Your task to perform on an android device: set the timer Image 0: 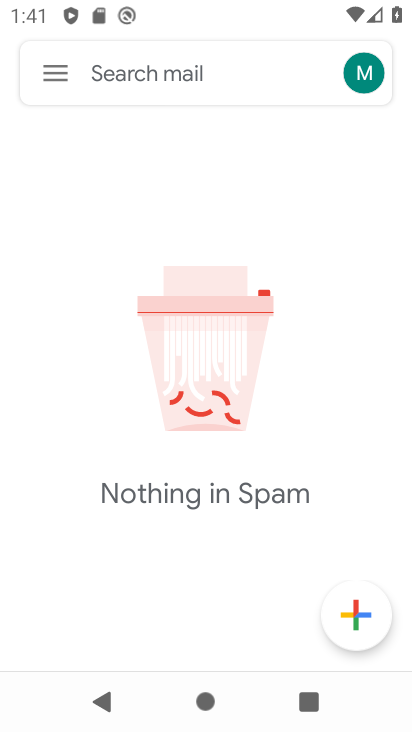
Step 0: press home button
Your task to perform on an android device: set the timer Image 1: 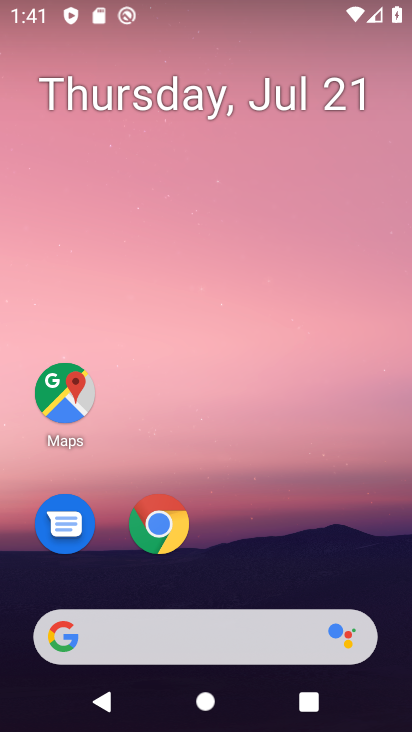
Step 1: drag from (281, 560) to (311, 185)
Your task to perform on an android device: set the timer Image 2: 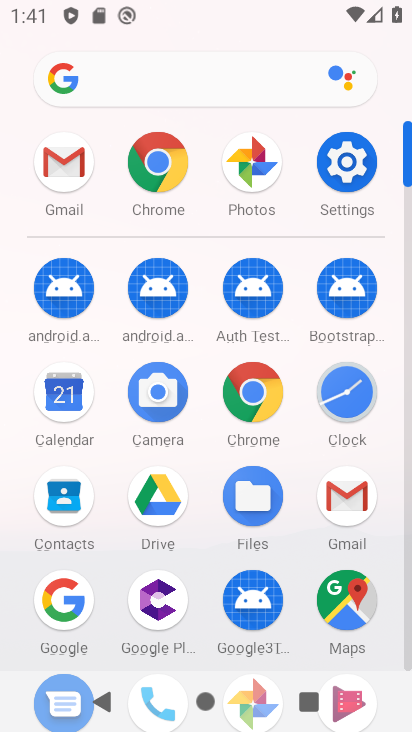
Step 2: click (354, 389)
Your task to perform on an android device: set the timer Image 3: 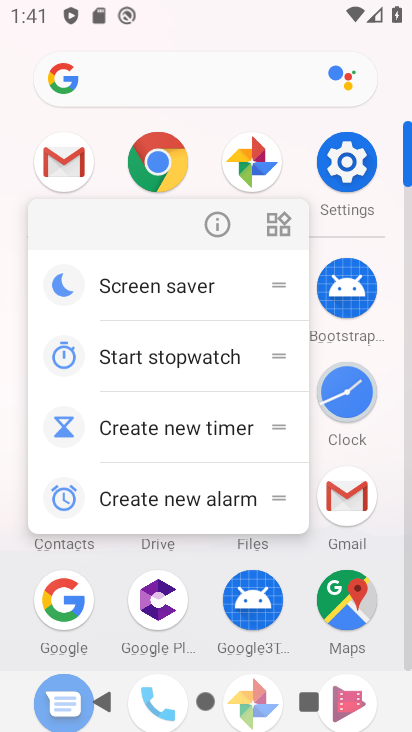
Step 3: click (354, 389)
Your task to perform on an android device: set the timer Image 4: 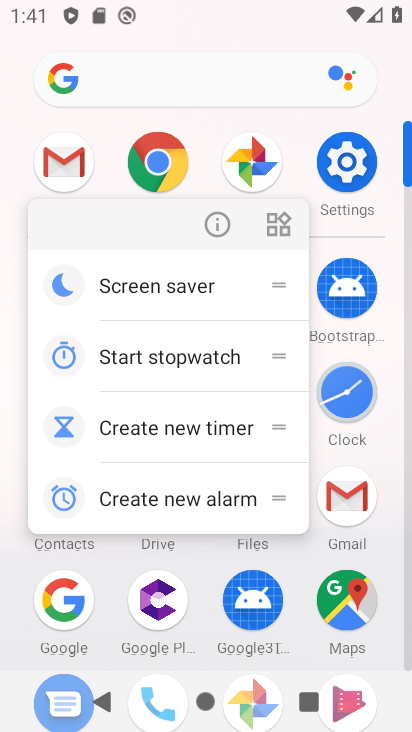
Step 4: click (360, 397)
Your task to perform on an android device: set the timer Image 5: 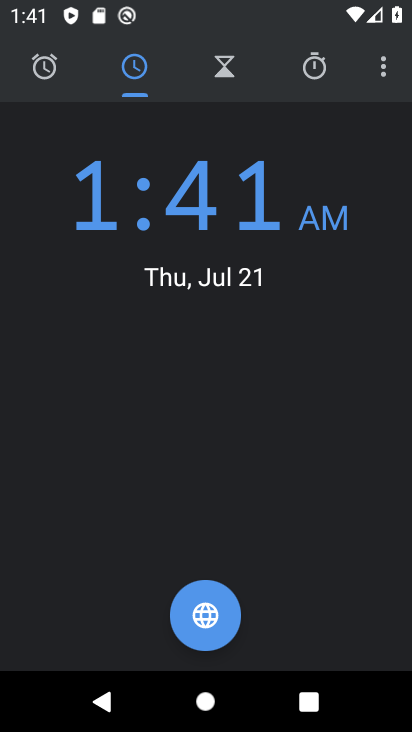
Step 5: click (231, 68)
Your task to perform on an android device: set the timer Image 6: 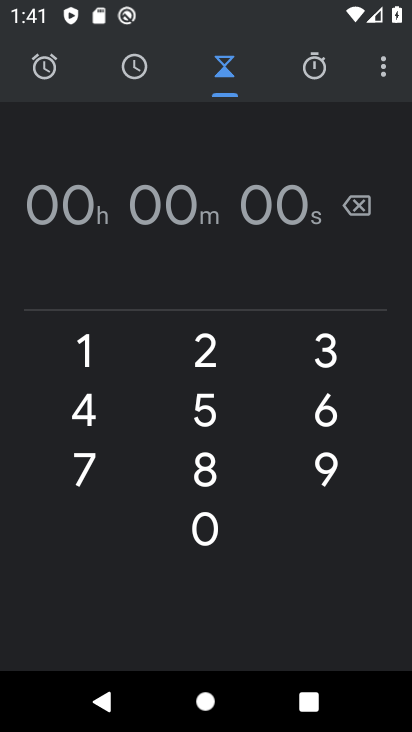
Step 6: task complete